Your task to perform on an android device: Go to network settings Image 0: 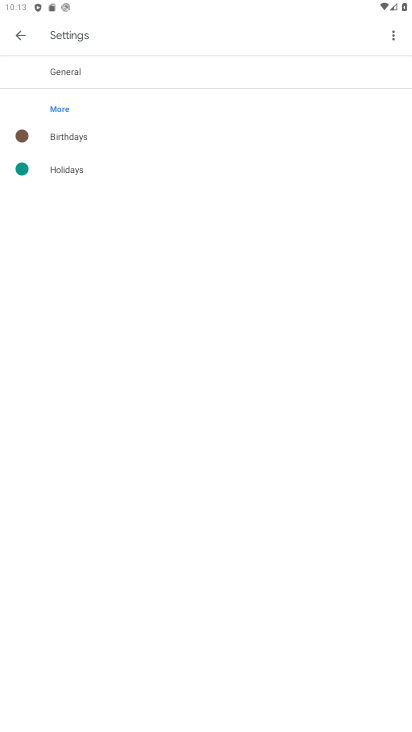
Step 0: press home button
Your task to perform on an android device: Go to network settings Image 1: 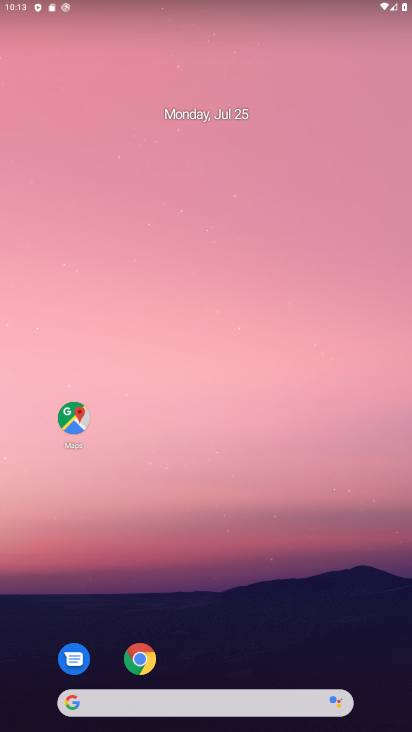
Step 1: drag from (214, 684) to (209, 45)
Your task to perform on an android device: Go to network settings Image 2: 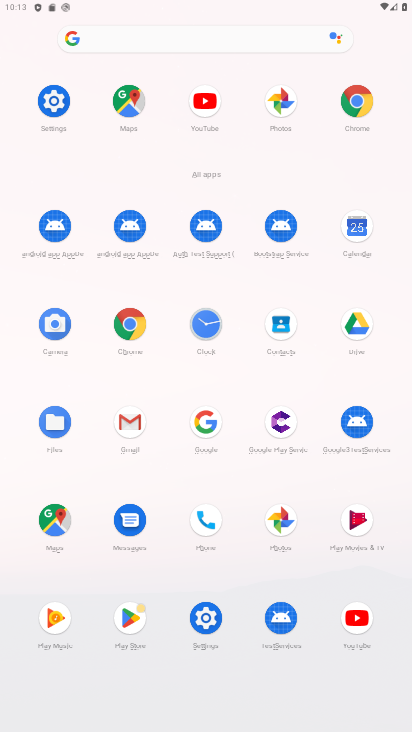
Step 2: click (215, 611)
Your task to perform on an android device: Go to network settings Image 3: 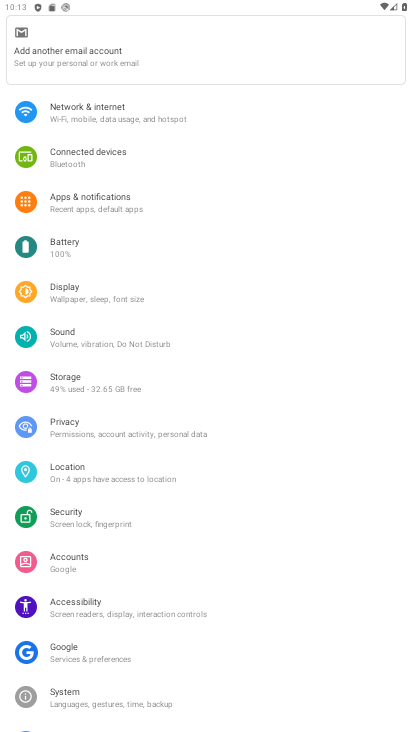
Step 3: click (97, 119)
Your task to perform on an android device: Go to network settings Image 4: 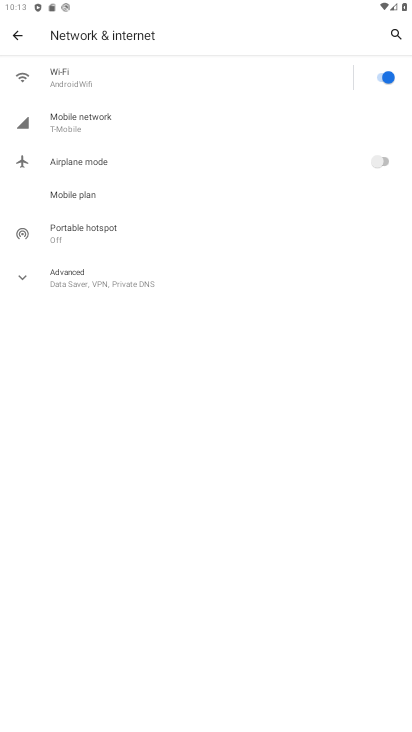
Step 4: click (80, 122)
Your task to perform on an android device: Go to network settings Image 5: 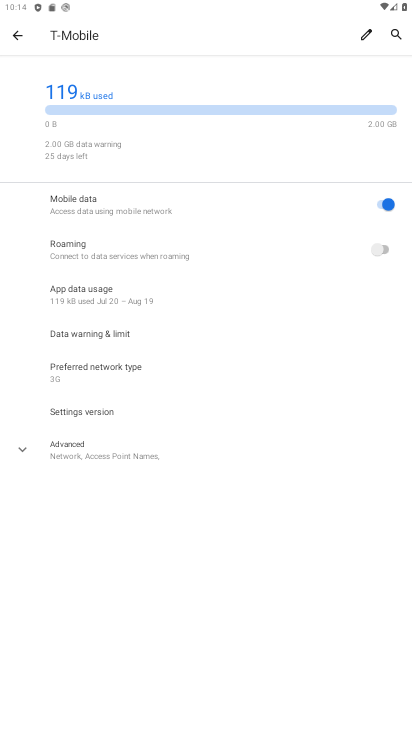
Step 5: task complete